Your task to perform on an android device: Open Wikipedia Image 0: 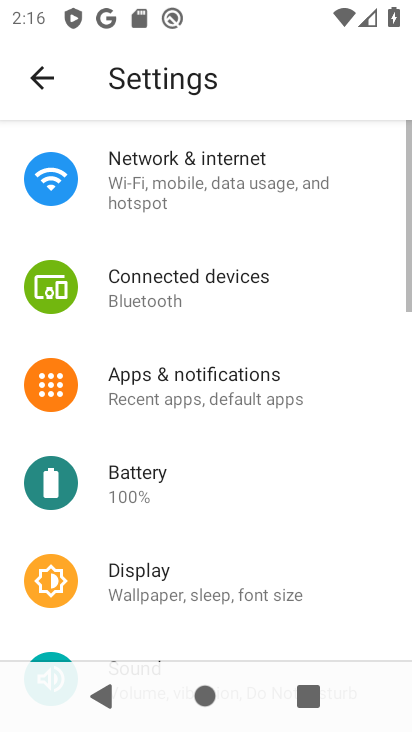
Step 0: press back button
Your task to perform on an android device: Open Wikipedia Image 1: 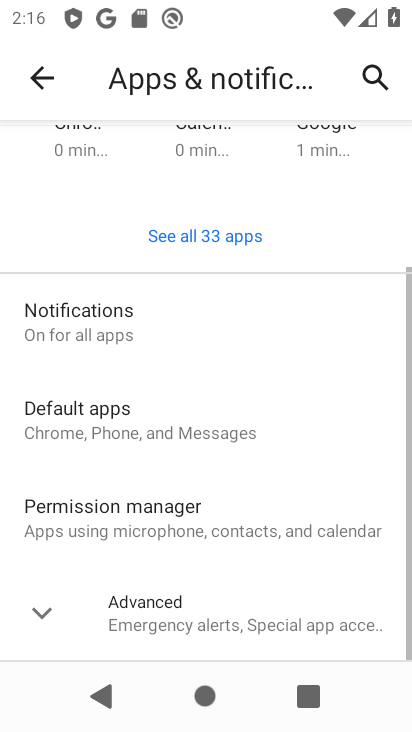
Step 1: press back button
Your task to perform on an android device: Open Wikipedia Image 2: 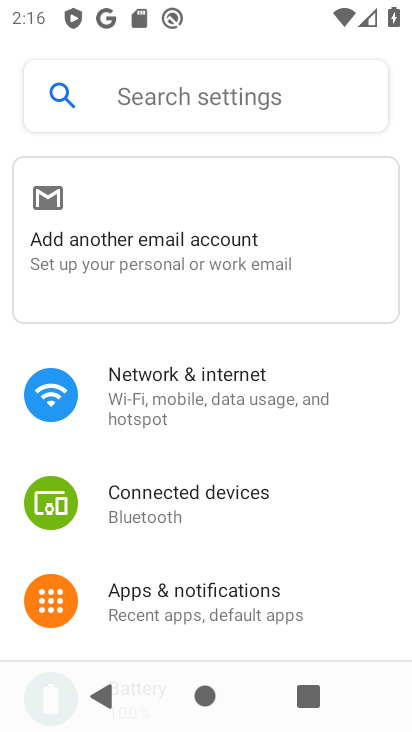
Step 2: press back button
Your task to perform on an android device: Open Wikipedia Image 3: 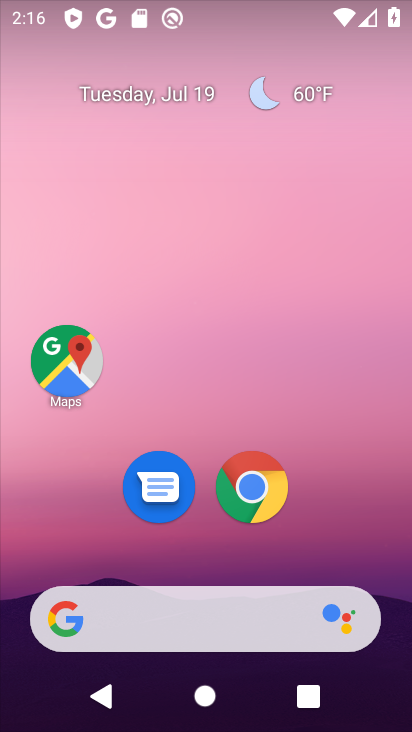
Step 3: click (258, 494)
Your task to perform on an android device: Open Wikipedia Image 4: 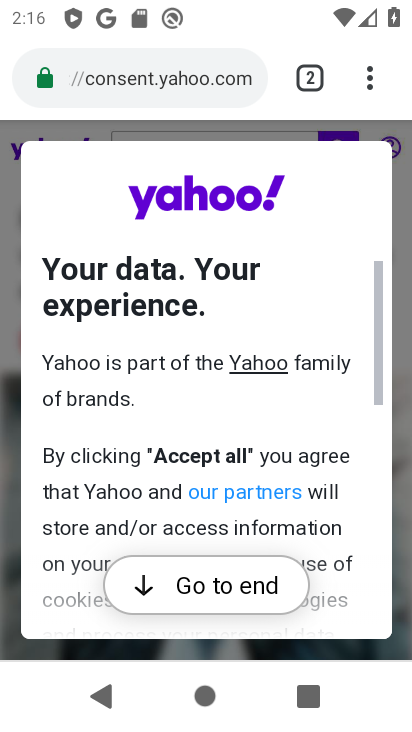
Step 4: click (312, 66)
Your task to perform on an android device: Open Wikipedia Image 5: 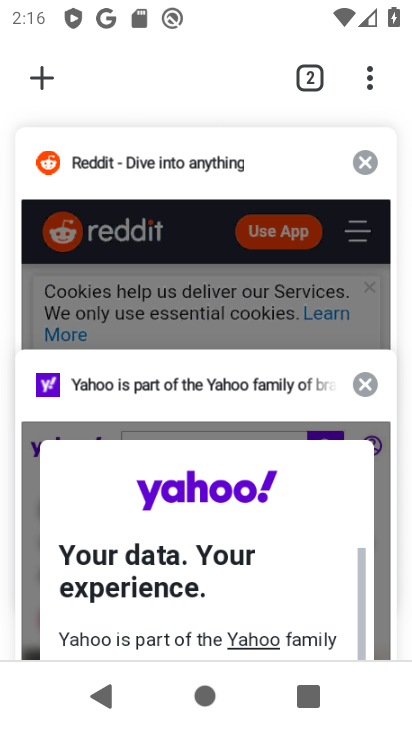
Step 5: click (49, 82)
Your task to perform on an android device: Open Wikipedia Image 6: 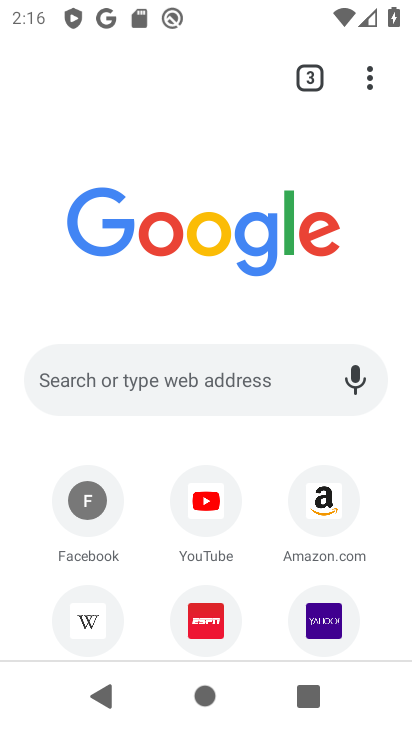
Step 6: click (82, 616)
Your task to perform on an android device: Open Wikipedia Image 7: 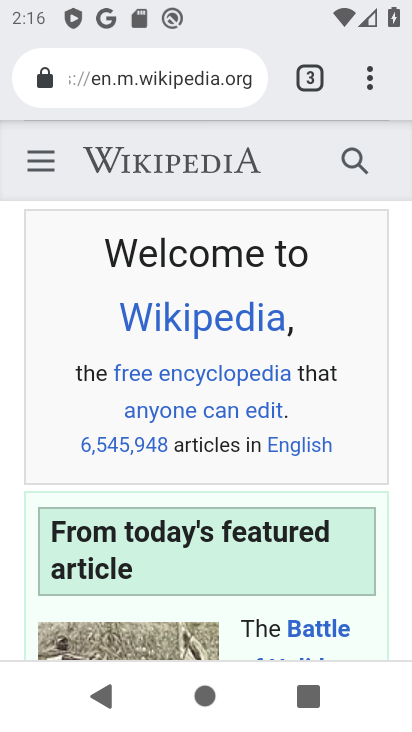
Step 7: task complete